Your task to perform on an android device: turn off location history Image 0: 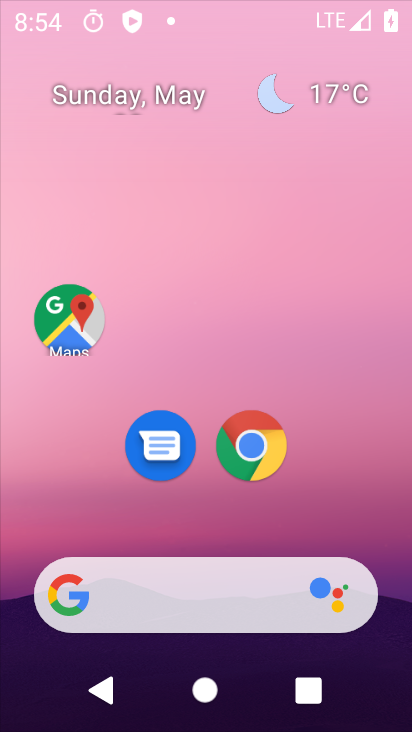
Step 0: click (249, 8)
Your task to perform on an android device: turn off location history Image 1: 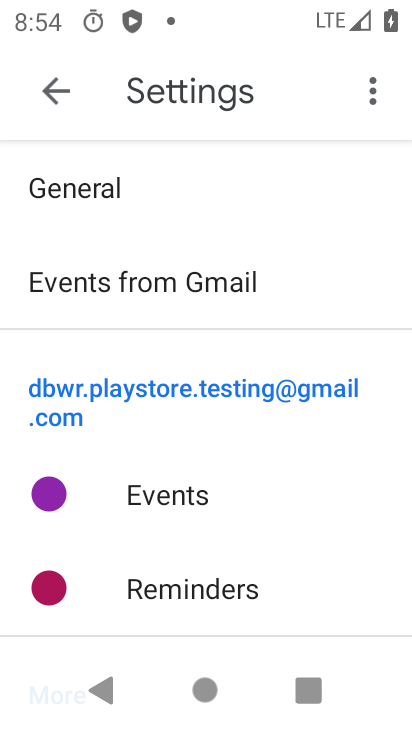
Step 1: press home button
Your task to perform on an android device: turn off location history Image 2: 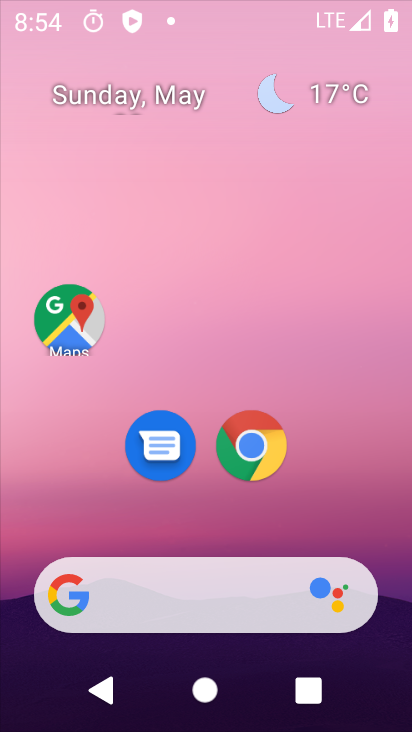
Step 2: drag from (205, 500) to (292, 89)
Your task to perform on an android device: turn off location history Image 3: 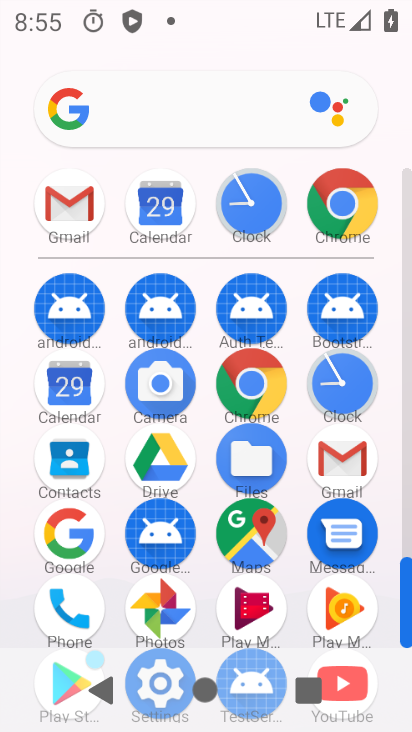
Step 3: drag from (213, 574) to (236, 217)
Your task to perform on an android device: turn off location history Image 4: 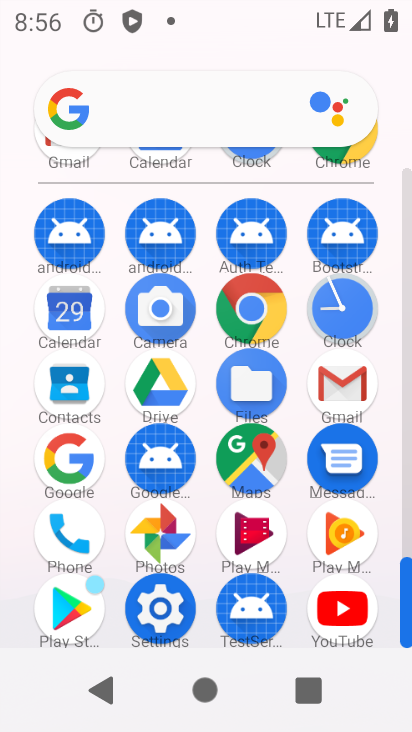
Step 4: click (166, 608)
Your task to perform on an android device: turn off location history Image 5: 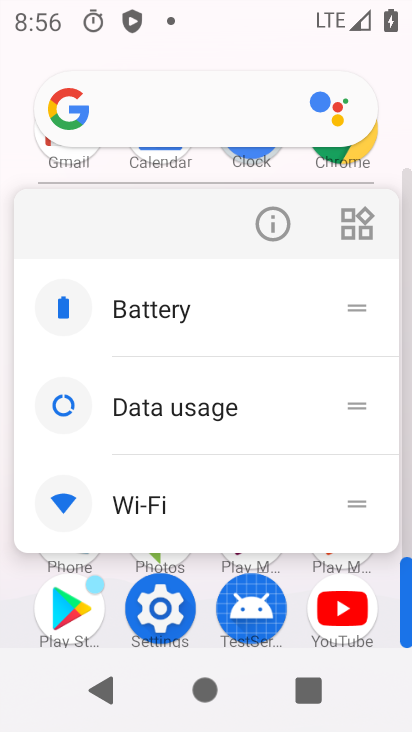
Step 5: click (284, 226)
Your task to perform on an android device: turn off location history Image 6: 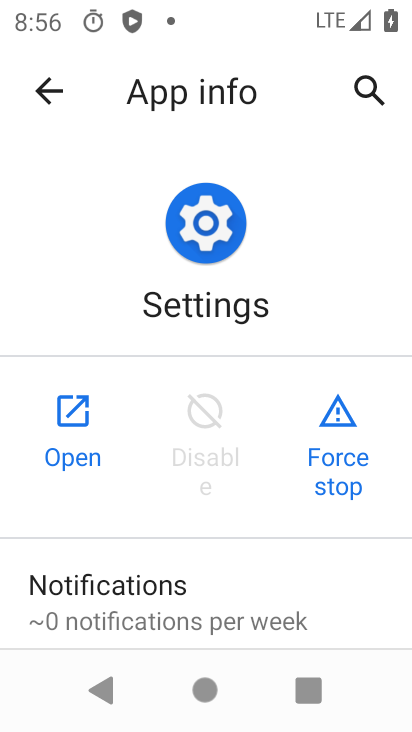
Step 6: click (78, 424)
Your task to perform on an android device: turn off location history Image 7: 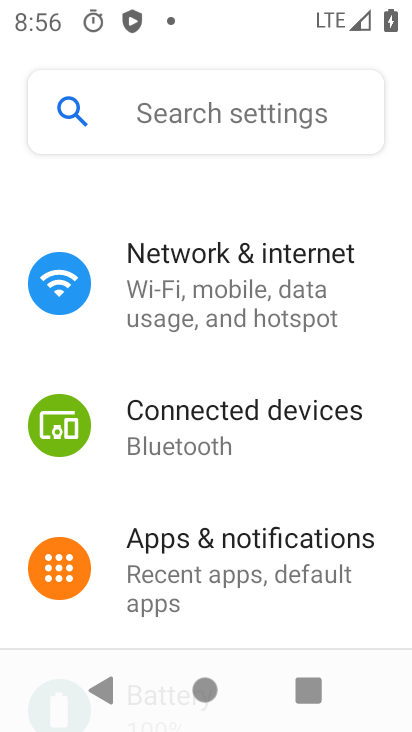
Step 7: drag from (201, 553) to (294, 140)
Your task to perform on an android device: turn off location history Image 8: 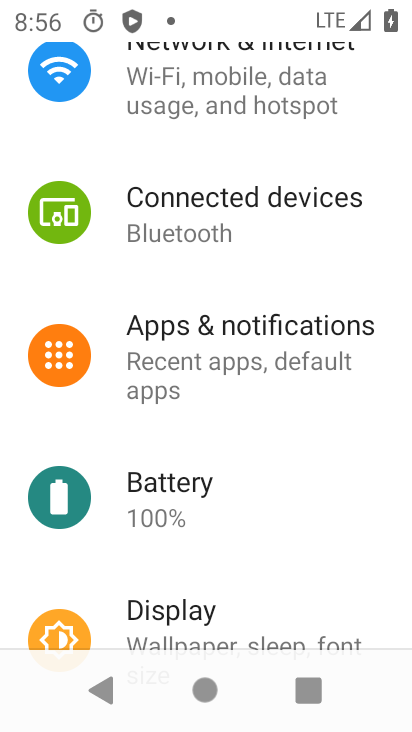
Step 8: drag from (201, 602) to (343, 107)
Your task to perform on an android device: turn off location history Image 9: 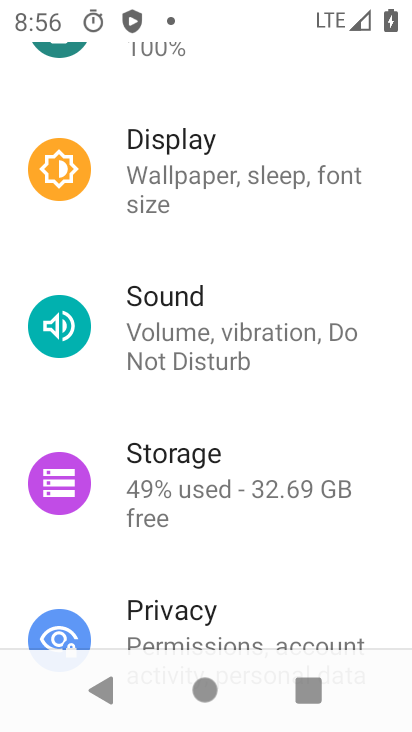
Step 9: drag from (227, 624) to (317, 136)
Your task to perform on an android device: turn off location history Image 10: 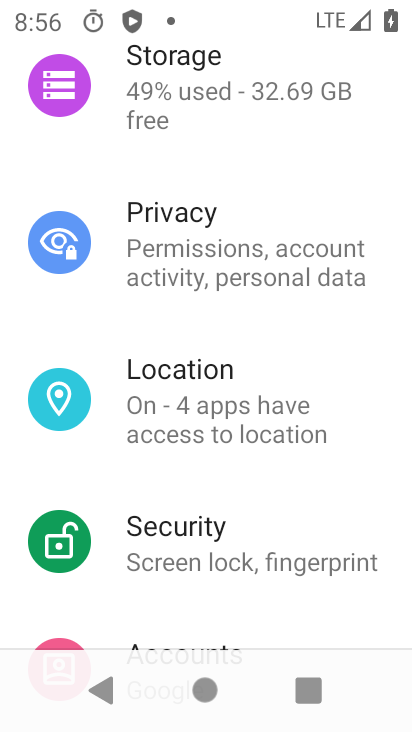
Step 10: click (193, 403)
Your task to perform on an android device: turn off location history Image 11: 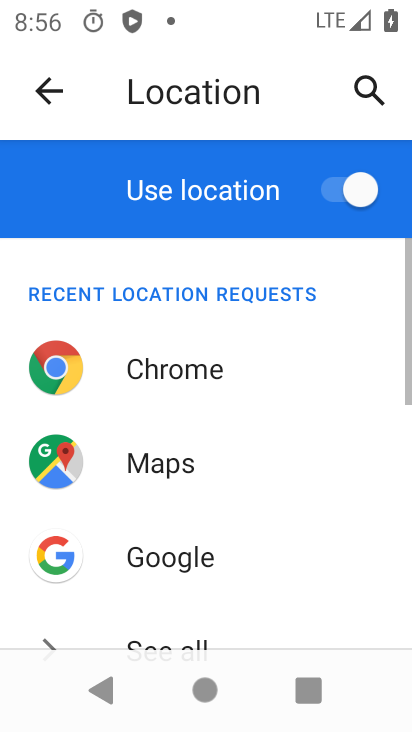
Step 11: drag from (232, 585) to (315, 175)
Your task to perform on an android device: turn off location history Image 12: 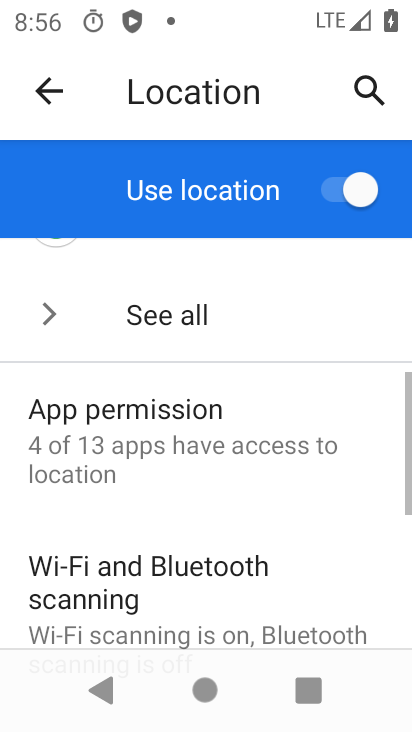
Step 12: drag from (238, 485) to (266, 276)
Your task to perform on an android device: turn off location history Image 13: 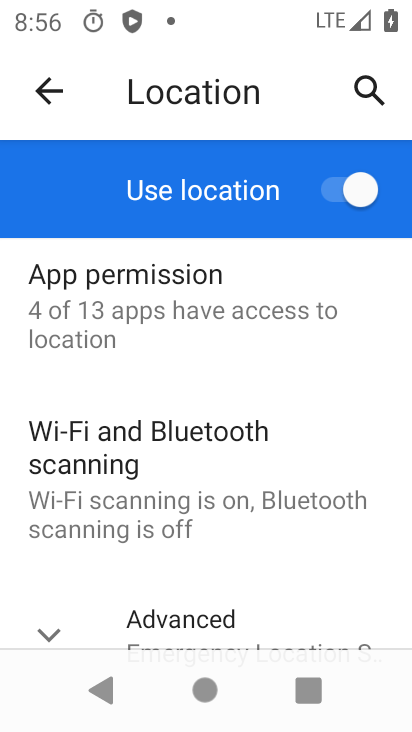
Step 13: drag from (182, 553) to (309, 217)
Your task to perform on an android device: turn off location history Image 14: 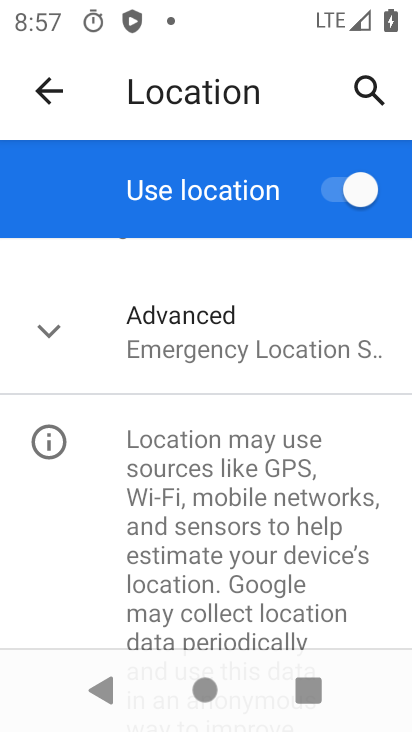
Step 14: click (127, 337)
Your task to perform on an android device: turn off location history Image 15: 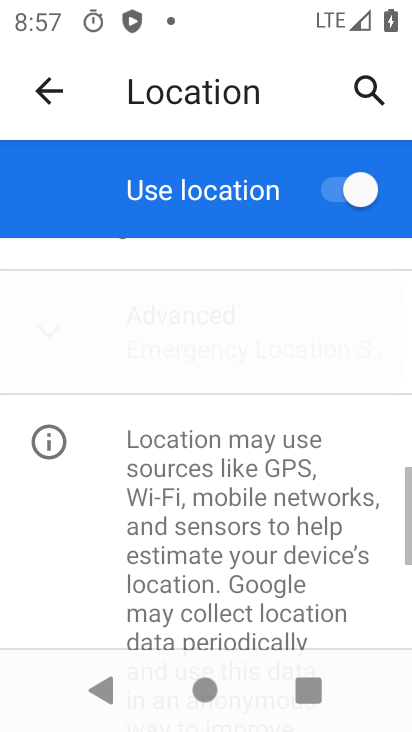
Step 15: drag from (213, 568) to (291, 101)
Your task to perform on an android device: turn off location history Image 16: 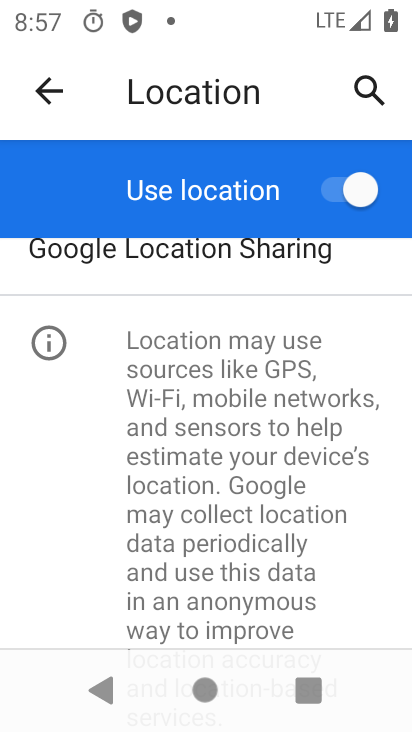
Step 16: drag from (220, 277) to (252, 583)
Your task to perform on an android device: turn off location history Image 17: 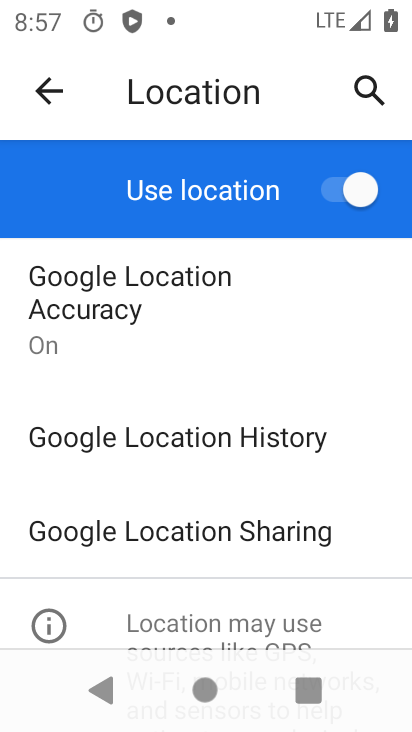
Step 17: click (154, 463)
Your task to perform on an android device: turn off location history Image 18: 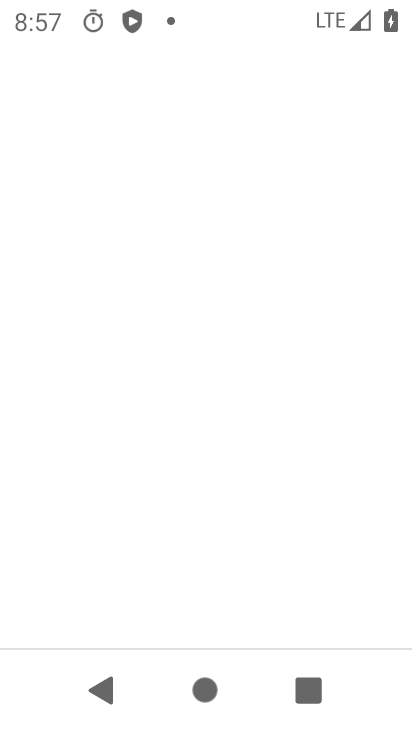
Step 18: drag from (252, 539) to (280, 220)
Your task to perform on an android device: turn off location history Image 19: 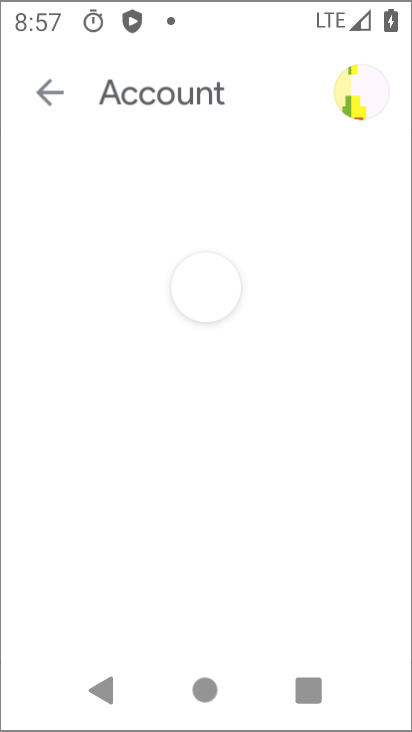
Step 19: drag from (234, 581) to (266, 226)
Your task to perform on an android device: turn off location history Image 20: 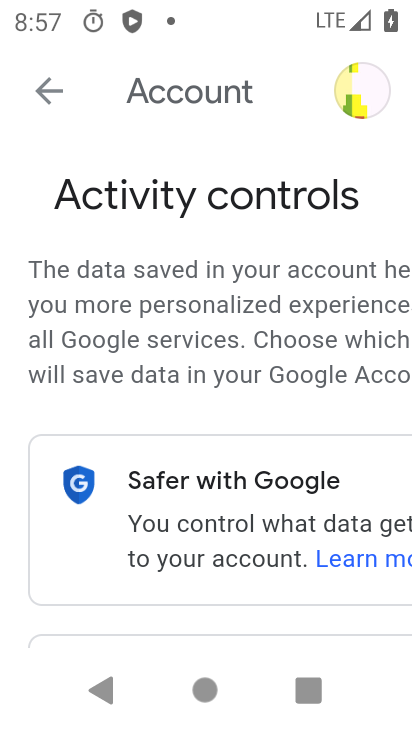
Step 20: drag from (245, 568) to (278, 160)
Your task to perform on an android device: turn off location history Image 21: 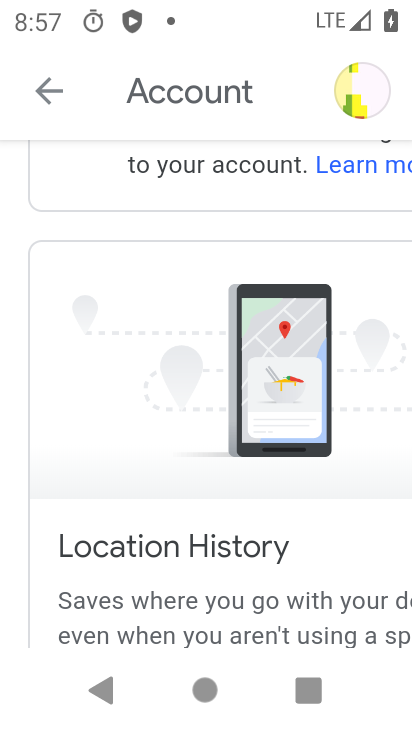
Step 21: drag from (247, 553) to (281, 170)
Your task to perform on an android device: turn off location history Image 22: 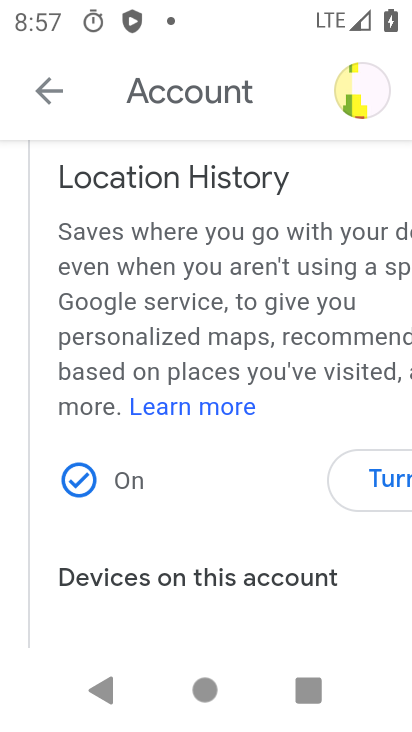
Step 22: click (387, 488)
Your task to perform on an android device: turn off location history Image 23: 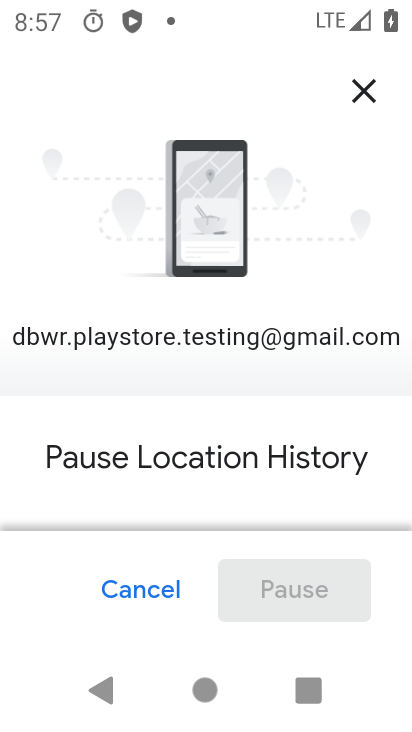
Step 23: drag from (265, 477) to (20, 20)
Your task to perform on an android device: turn off location history Image 24: 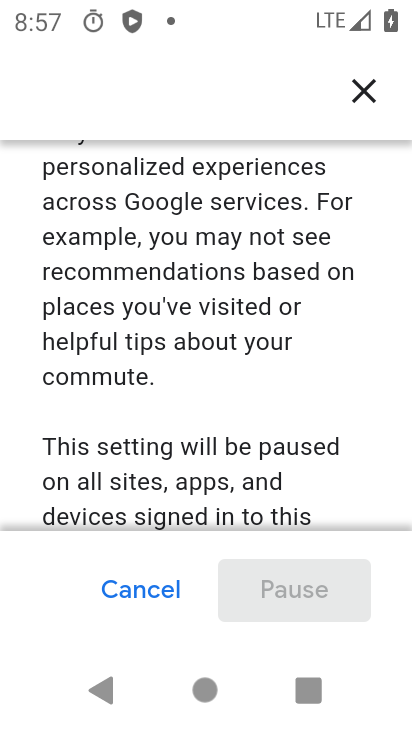
Step 24: drag from (184, 493) to (196, 184)
Your task to perform on an android device: turn off location history Image 25: 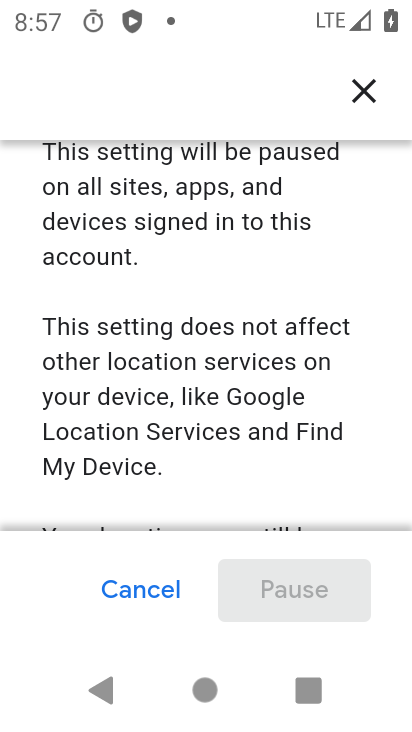
Step 25: drag from (170, 513) to (275, 34)
Your task to perform on an android device: turn off location history Image 26: 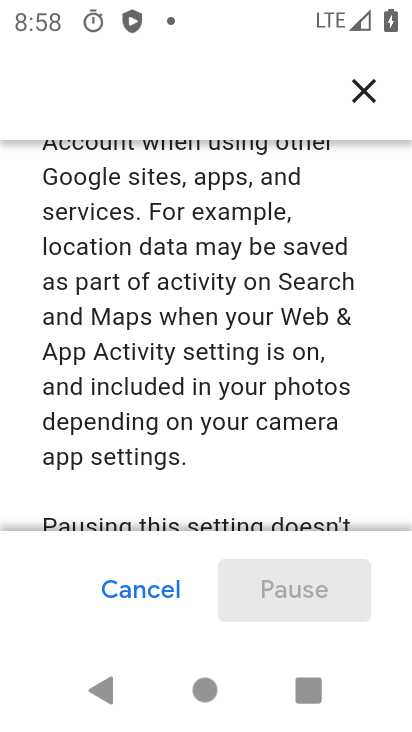
Step 26: drag from (222, 463) to (264, 27)
Your task to perform on an android device: turn off location history Image 27: 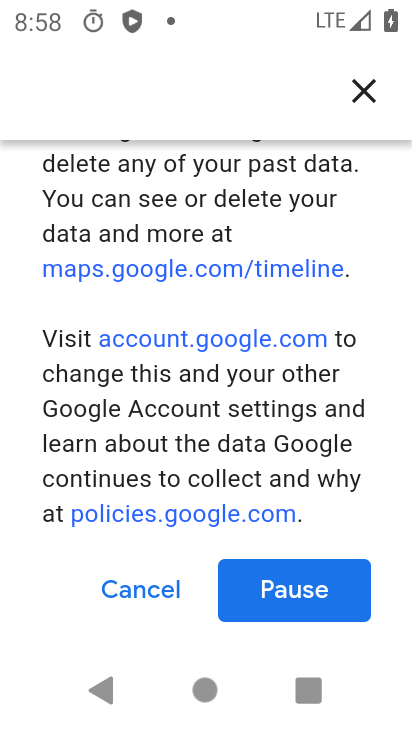
Step 27: drag from (234, 470) to (279, 129)
Your task to perform on an android device: turn off location history Image 28: 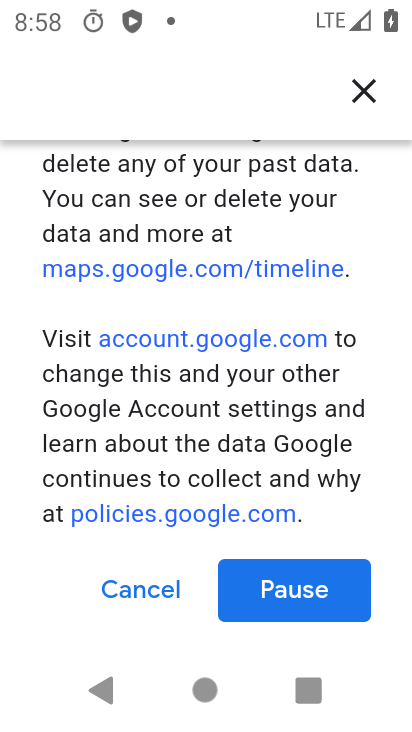
Step 28: click (281, 591)
Your task to perform on an android device: turn off location history Image 29: 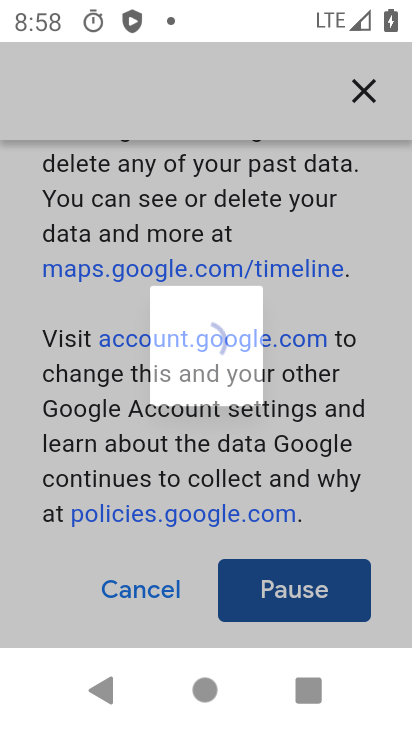
Step 29: task complete